Your task to perform on an android device: Show me productivity apps on the Play Store Image 0: 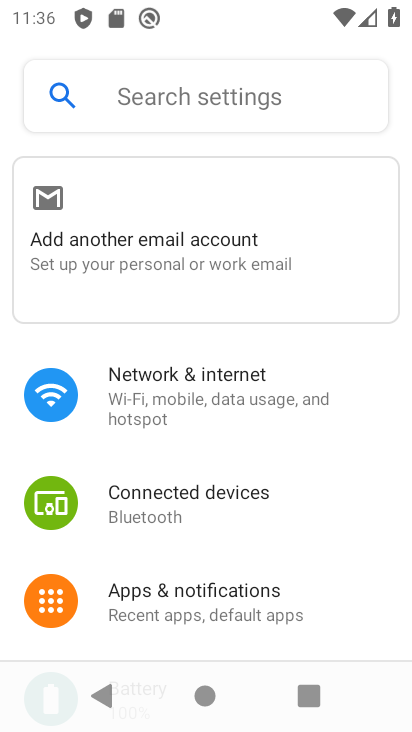
Step 0: press home button
Your task to perform on an android device: Show me productivity apps on the Play Store Image 1: 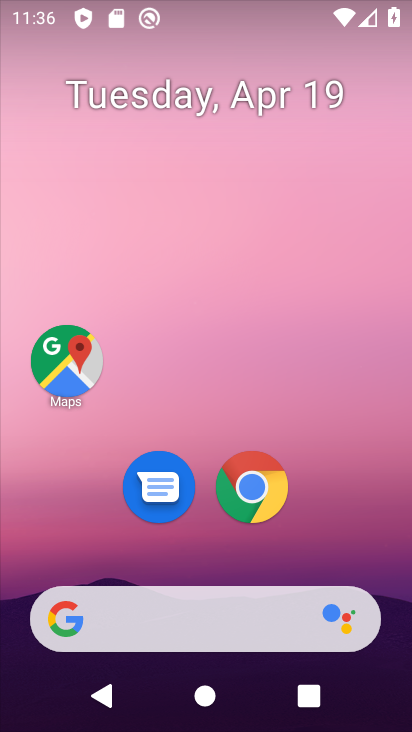
Step 1: drag from (330, 537) to (301, 238)
Your task to perform on an android device: Show me productivity apps on the Play Store Image 2: 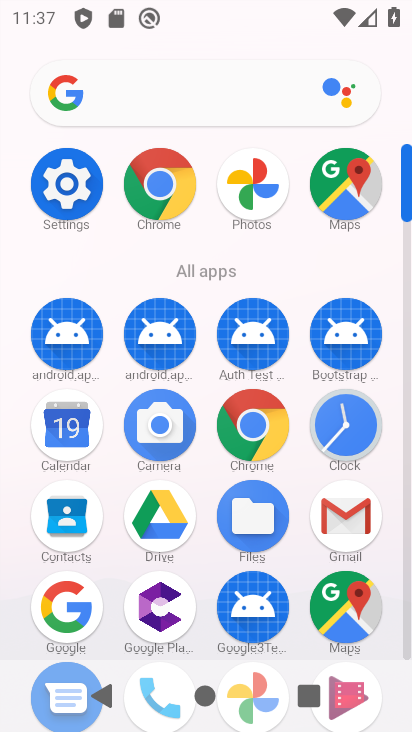
Step 2: click (407, 656)
Your task to perform on an android device: Show me productivity apps on the Play Store Image 3: 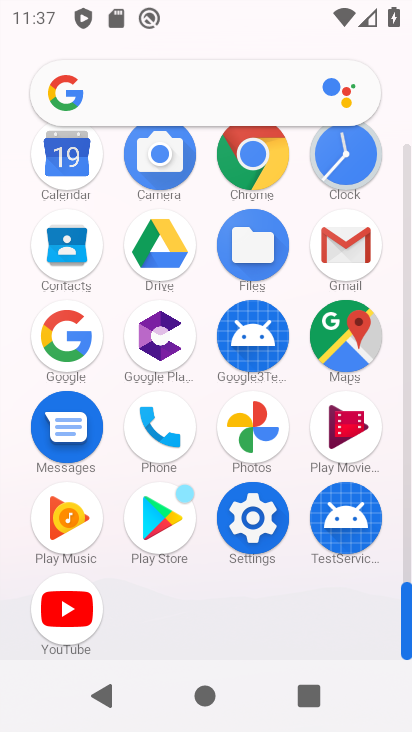
Step 3: click (159, 509)
Your task to perform on an android device: Show me productivity apps on the Play Store Image 4: 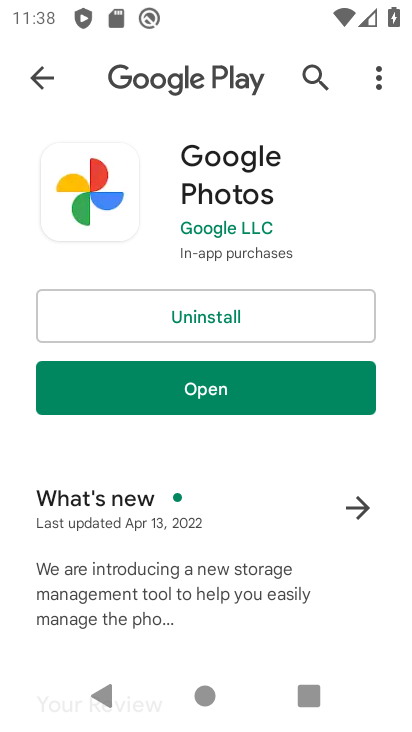
Step 4: press back button
Your task to perform on an android device: Show me productivity apps on the Play Store Image 5: 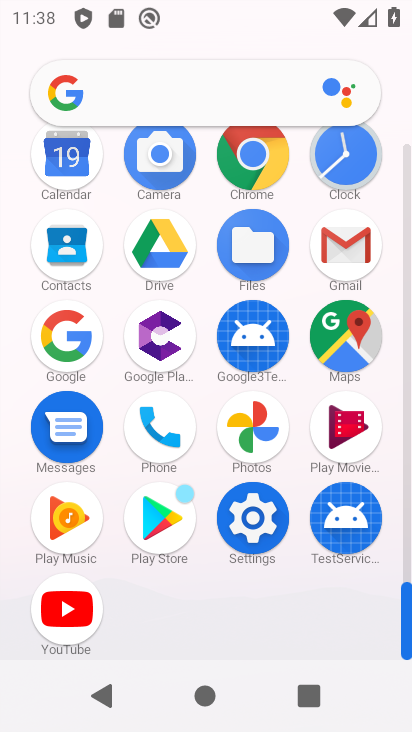
Step 5: click (139, 513)
Your task to perform on an android device: Show me productivity apps on the Play Store Image 6: 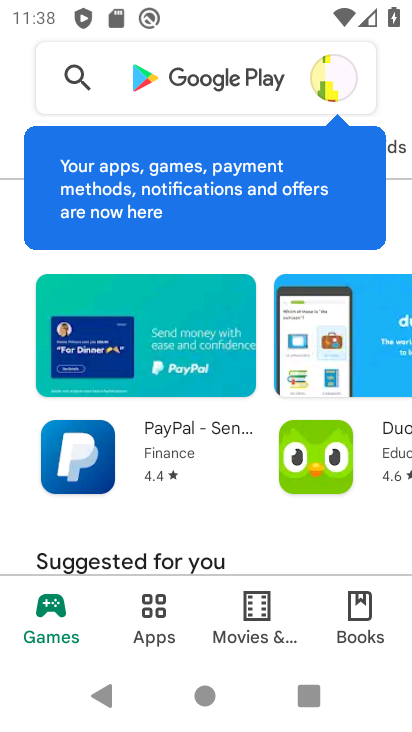
Step 6: click (339, 91)
Your task to perform on an android device: Show me productivity apps on the Play Store Image 7: 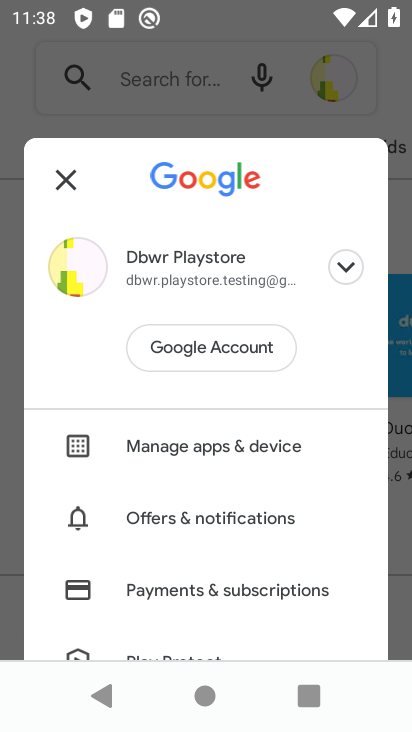
Step 7: press back button
Your task to perform on an android device: Show me productivity apps on the Play Store Image 8: 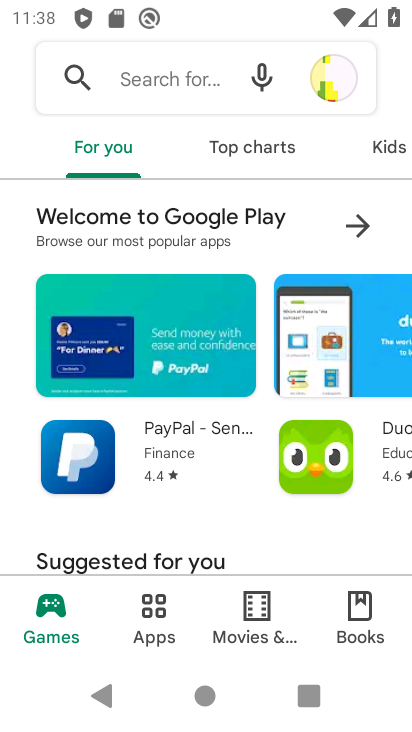
Step 8: click (150, 612)
Your task to perform on an android device: Show me productivity apps on the Play Store Image 9: 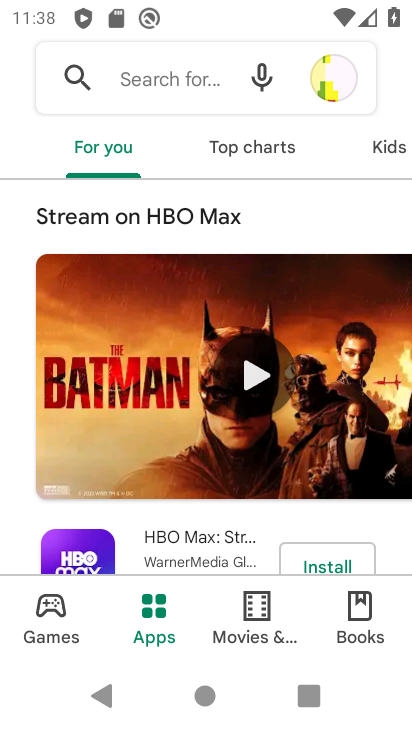
Step 9: drag from (330, 155) to (18, 117)
Your task to perform on an android device: Show me productivity apps on the Play Store Image 10: 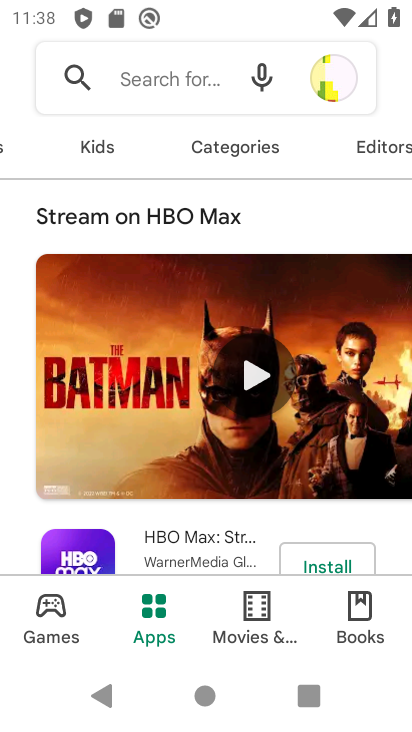
Step 10: drag from (333, 144) to (1, 142)
Your task to perform on an android device: Show me productivity apps on the Play Store Image 11: 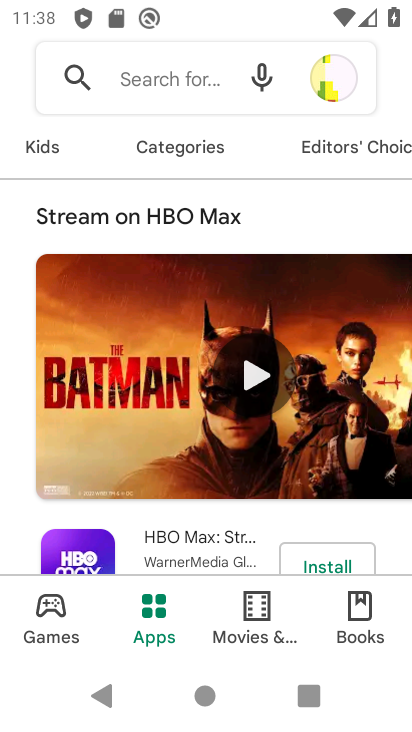
Step 11: click (155, 145)
Your task to perform on an android device: Show me productivity apps on the Play Store Image 12: 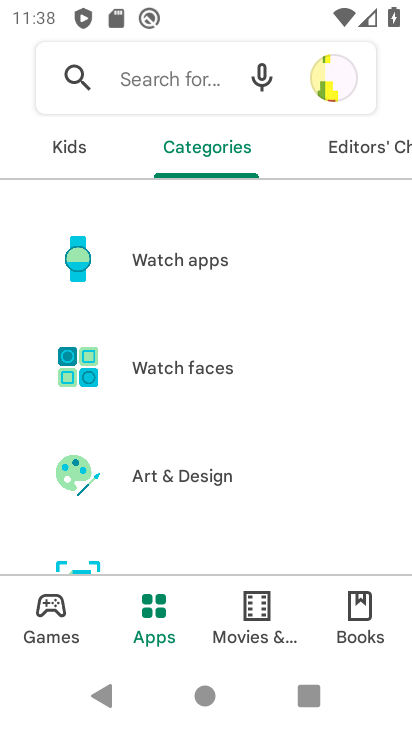
Step 12: task complete